Your task to perform on an android device: snooze an email in the gmail app Image 0: 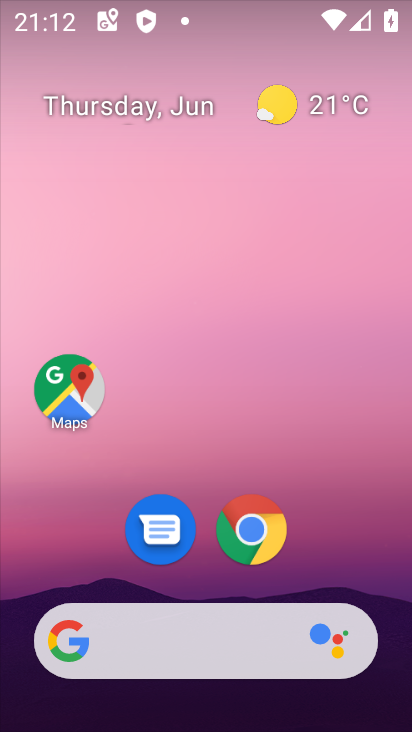
Step 0: drag from (341, 530) to (216, 181)
Your task to perform on an android device: snooze an email in the gmail app Image 1: 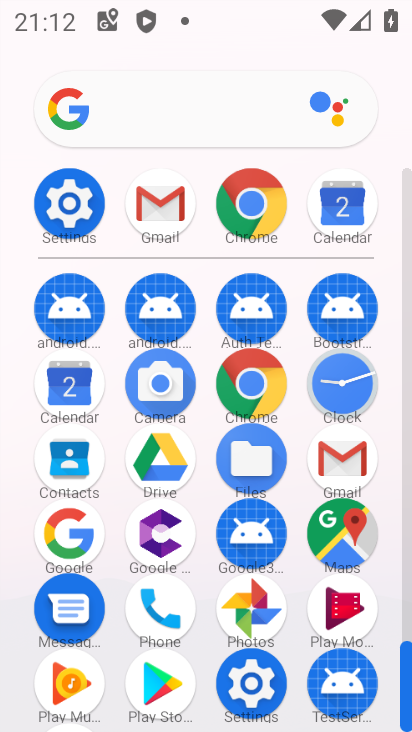
Step 1: click (147, 213)
Your task to perform on an android device: snooze an email in the gmail app Image 2: 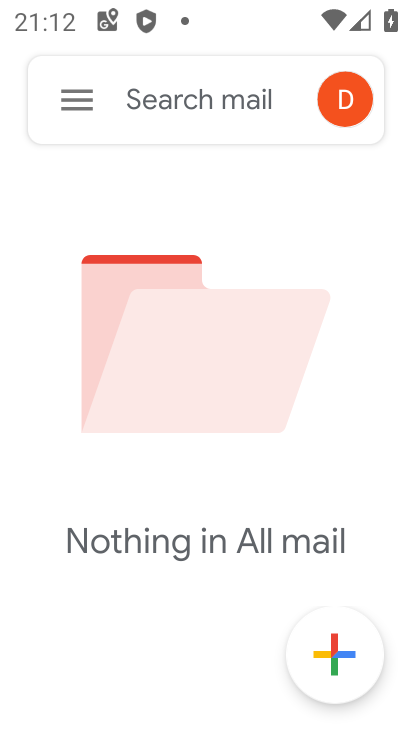
Step 2: click (72, 91)
Your task to perform on an android device: snooze an email in the gmail app Image 3: 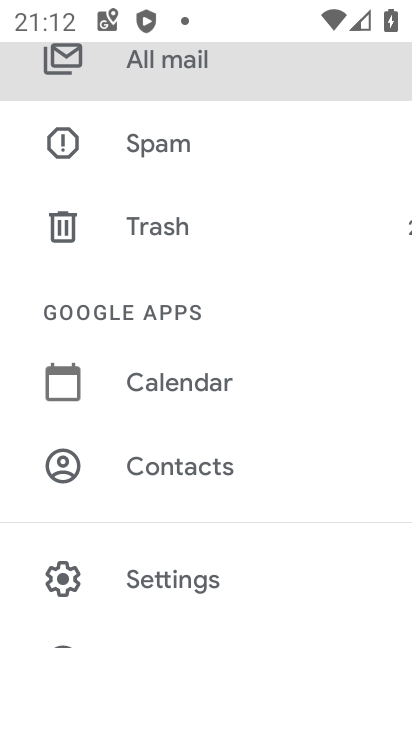
Step 3: click (184, 66)
Your task to perform on an android device: snooze an email in the gmail app Image 4: 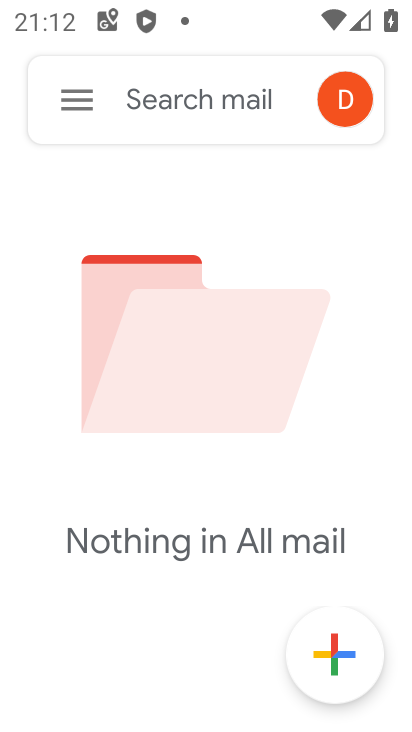
Step 4: task complete